Your task to perform on an android device: open device folders in google photos Image 0: 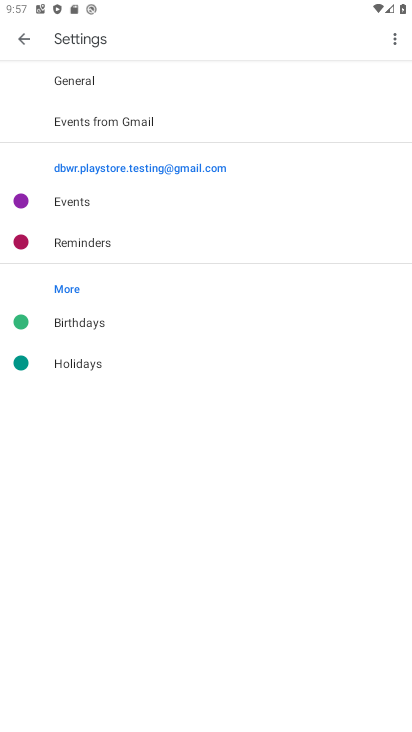
Step 0: press home button
Your task to perform on an android device: open device folders in google photos Image 1: 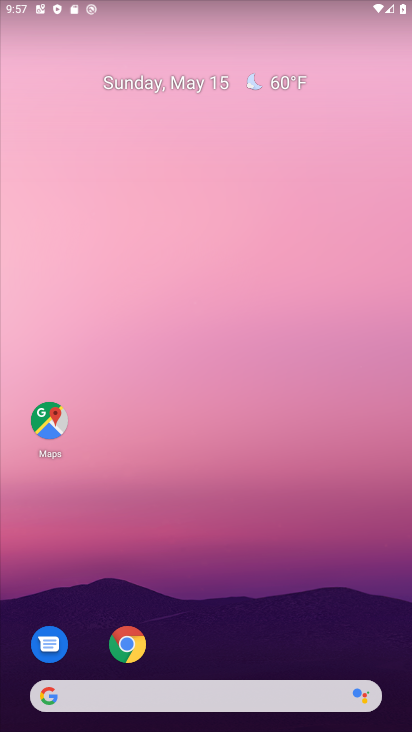
Step 1: drag from (228, 607) to (244, 339)
Your task to perform on an android device: open device folders in google photos Image 2: 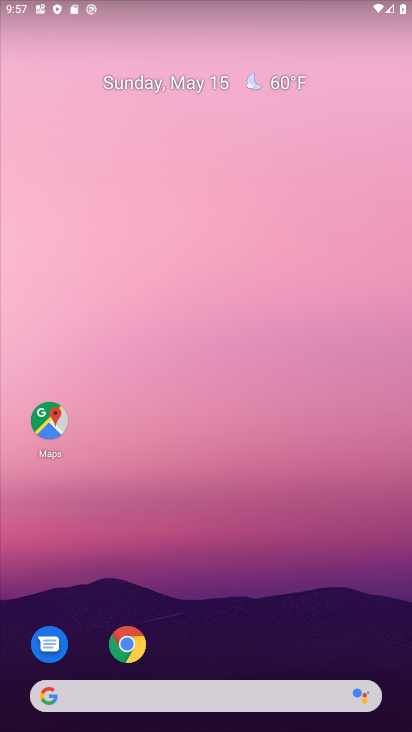
Step 2: drag from (260, 667) to (253, 232)
Your task to perform on an android device: open device folders in google photos Image 3: 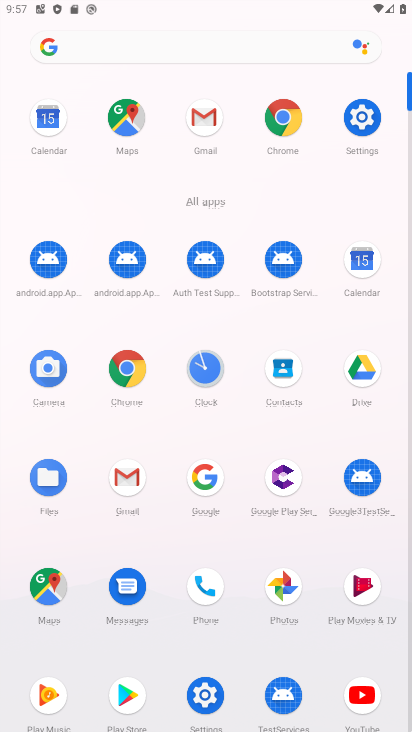
Step 3: click (280, 582)
Your task to perform on an android device: open device folders in google photos Image 4: 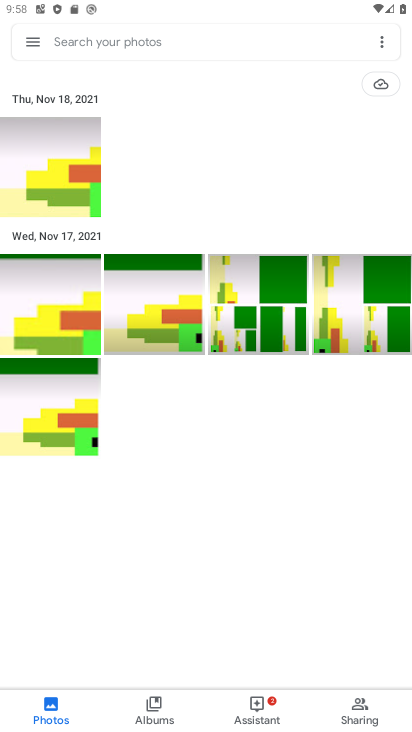
Step 4: click (29, 42)
Your task to perform on an android device: open device folders in google photos Image 5: 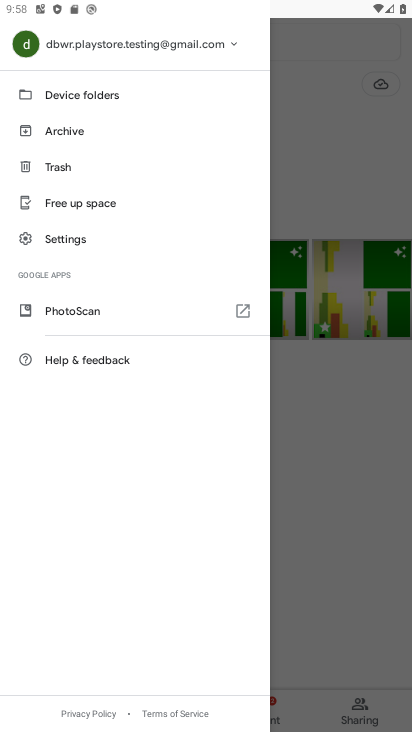
Step 5: click (79, 237)
Your task to perform on an android device: open device folders in google photos Image 6: 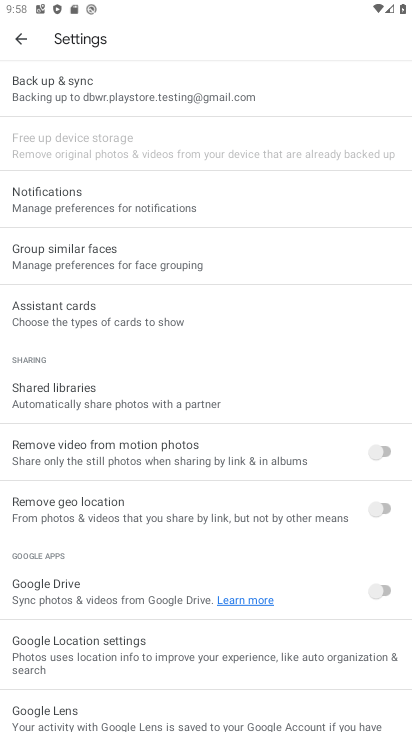
Step 6: click (22, 41)
Your task to perform on an android device: open device folders in google photos Image 7: 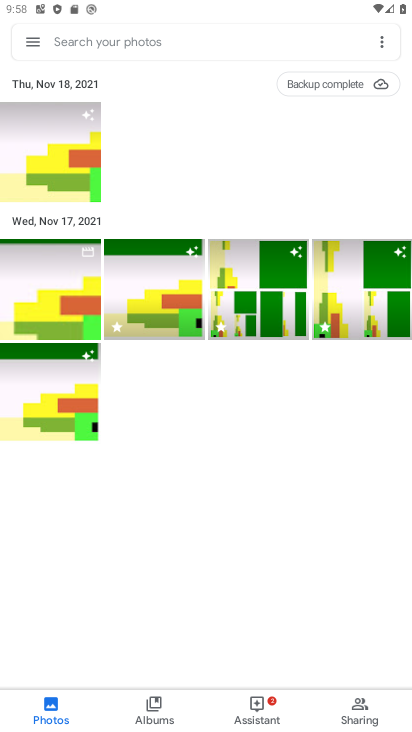
Step 7: click (35, 38)
Your task to perform on an android device: open device folders in google photos Image 8: 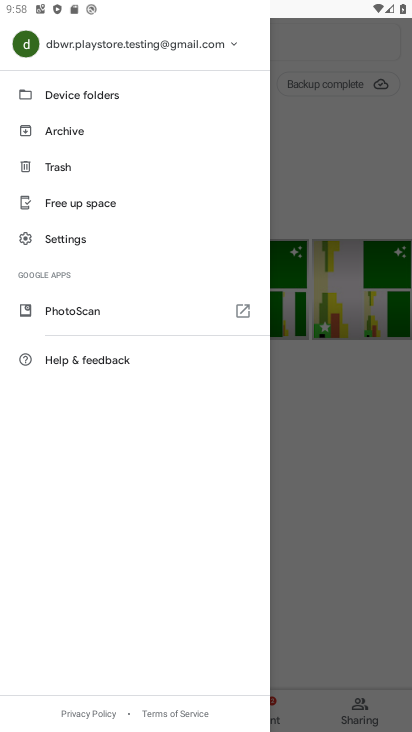
Step 8: click (65, 102)
Your task to perform on an android device: open device folders in google photos Image 9: 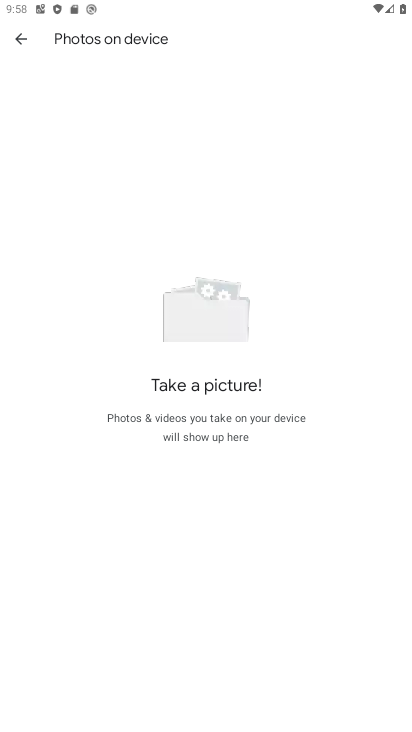
Step 9: task complete